Your task to perform on an android device: turn off notifications in google photos Image 0: 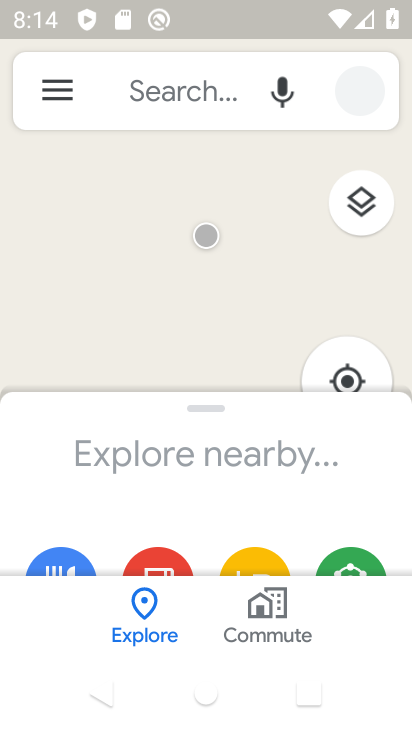
Step 0: press home button
Your task to perform on an android device: turn off notifications in google photos Image 1: 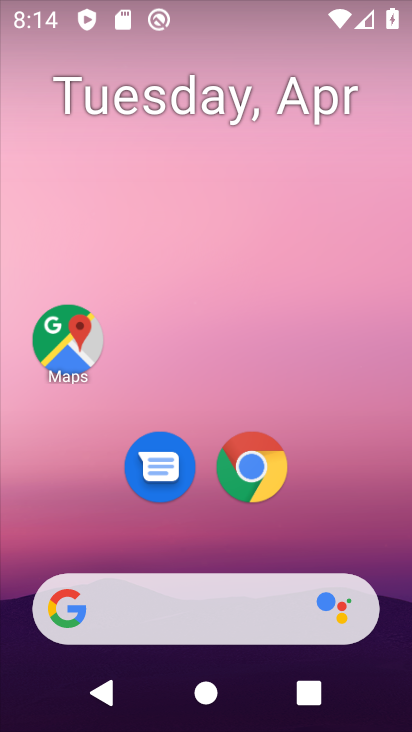
Step 1: drag from (358, 522) to (376, 6)
Your task to perform on an android device: turn off notifications in google photos Image 2: 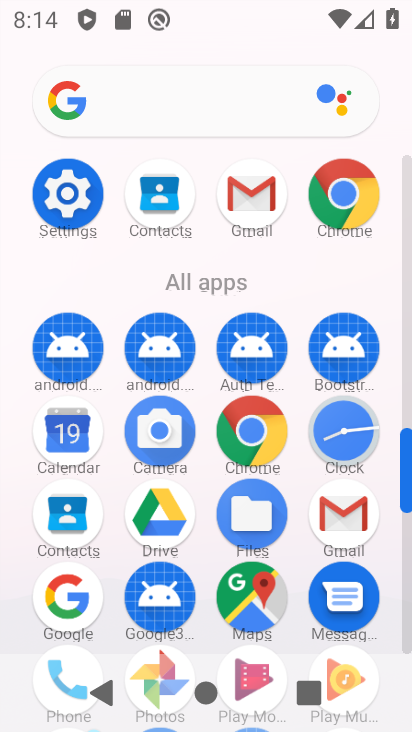
Step 2: click (408, 538)
Your task to perform on an android device: turn off notifications in google photos Image 3: 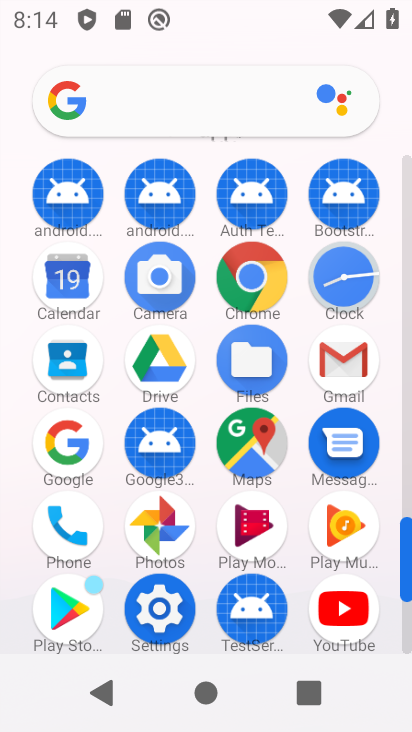
Step 3: click (163, 523)
Your task to perform on an android device: turn off notifications in google photos Image 4: 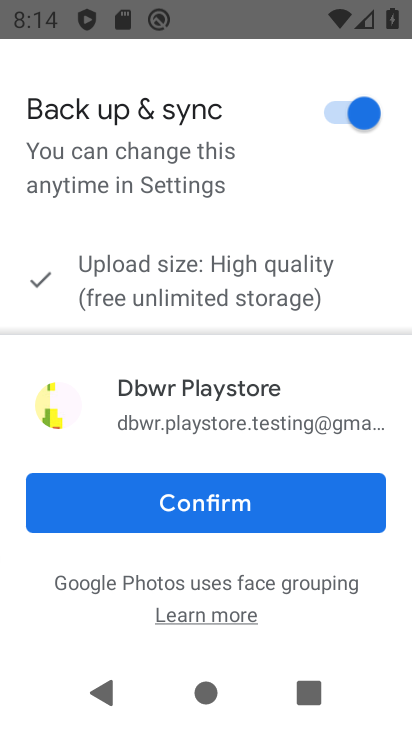
Step 4: click (196, 509)
Your task to perform on an android device: turn off notifications in google photos Image 5: 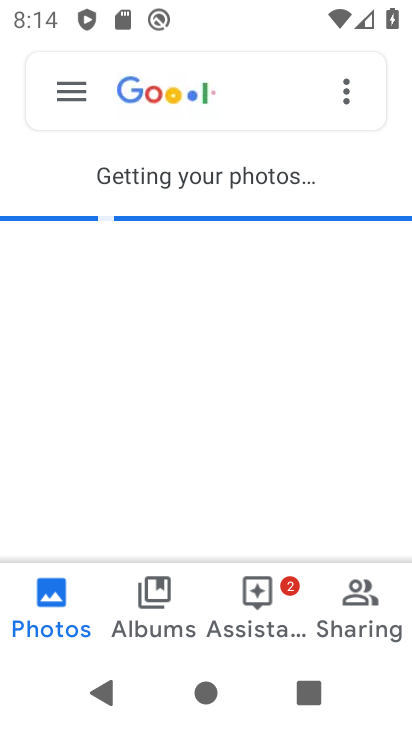
Step 5: click (72, 93)
Your task to perform on an android device: turn off notifications in google photos Image 6: 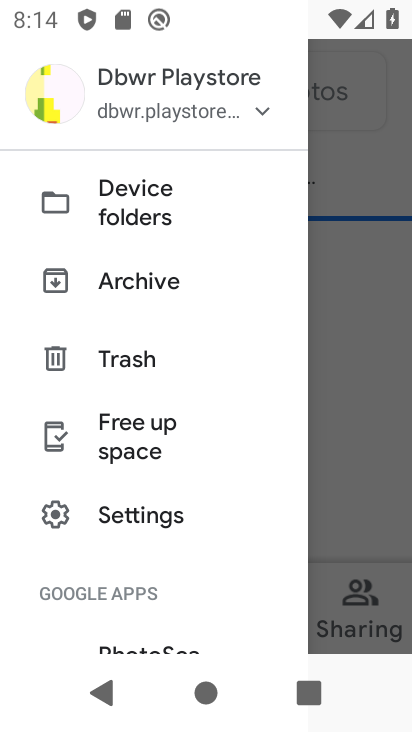
Step 6: click (125, 520)
Your task to perform on an android device: turn off notifications in google photos Image 7: 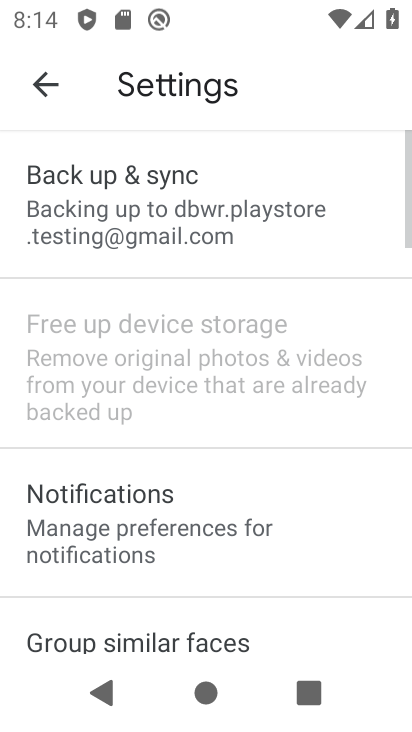
Step 7: click (136, 506)
Your task to perform on an android device: turn off notifications in google photos Image 8: 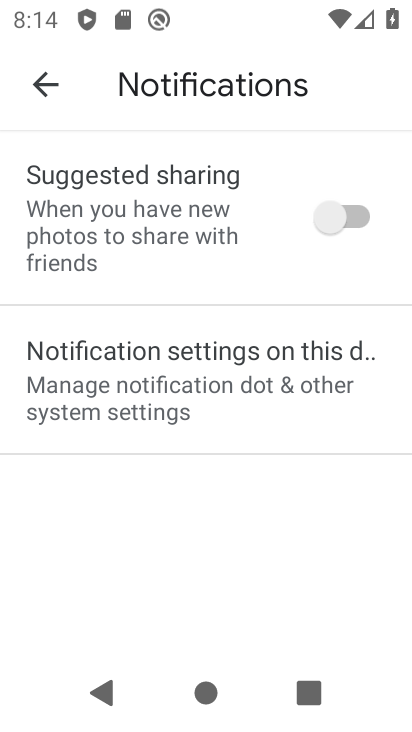
Step 8: click (154, 385)
Your task to perform on an android device: turn off notifications in google photos Image 9: 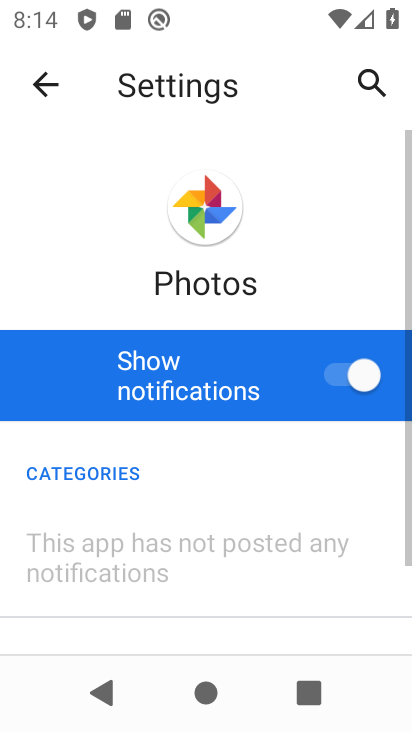
Step 9: click (349, 374)
Your task to perform on an android device: turn off notifications in google photos Image 10: 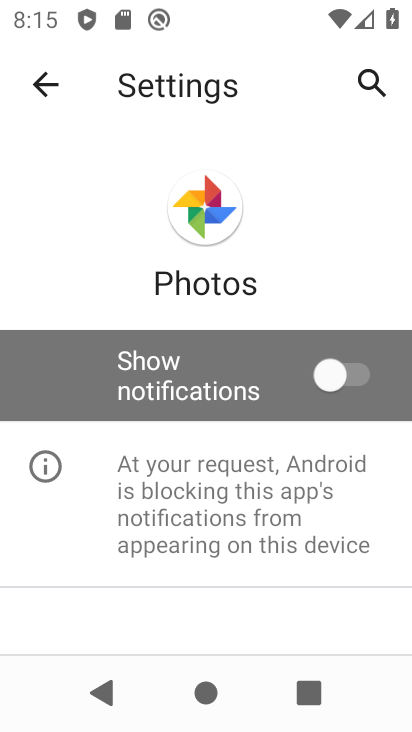
Step 10: task complete